Your task to perform on an android device: turn on showing notifications on the lock screen Image 0: 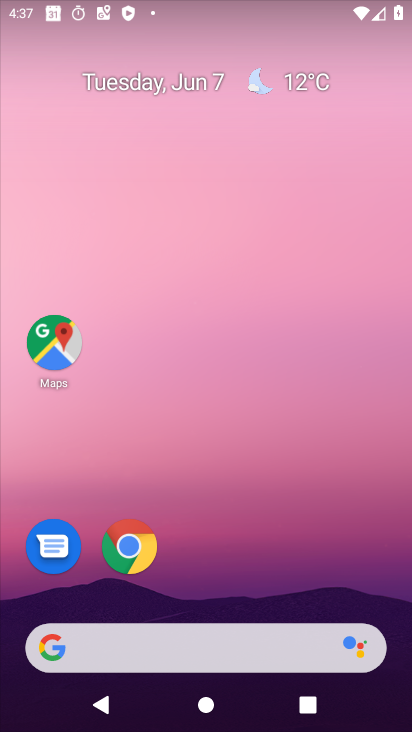
Step 0: drag from (166, 573) to (205, 198)
Your task to perform on an android device: turn on showing notifications on the lock screen Image 1: 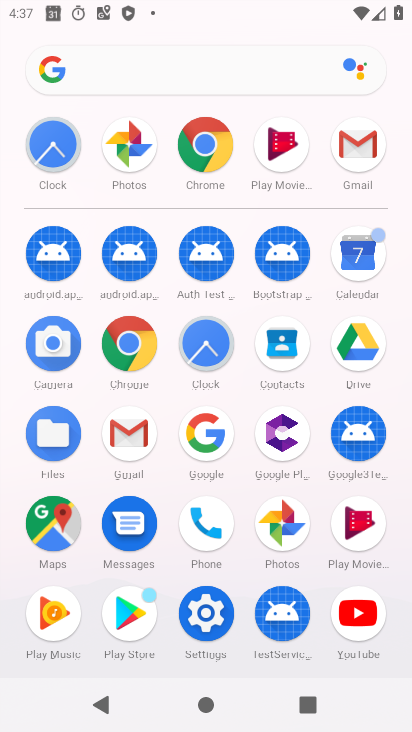
Step 1: click (193, 639)
Your task to perform on an android device: turn on showing notifications on the lock screen Image 2: 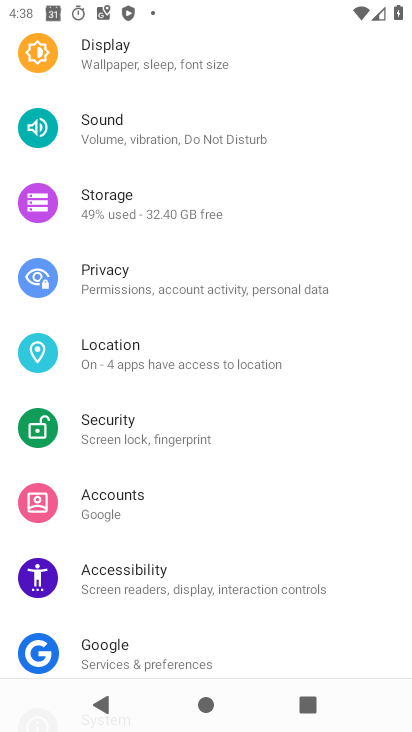
Step 2: drag from (242, 160) to (254, 505)
Your task to perform on an android device: turn on showing notifications on the lock screen Image 3: 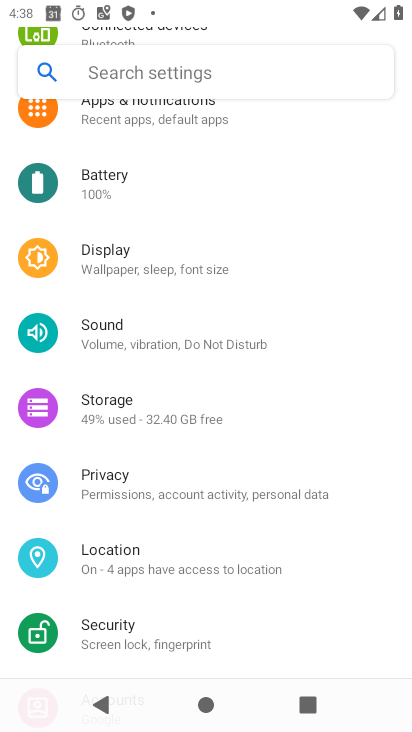
Step 3: click (122, 115)
Your task to perform on an android device: turn on showing notifications on the lock screen Image 4: 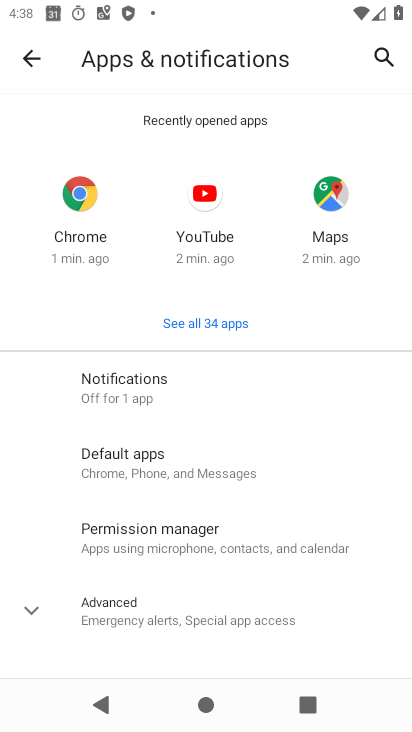
Step 4: click (129, 383)
Your task to perform on an android device: turn on showing notifications on the lock screen Image 5: 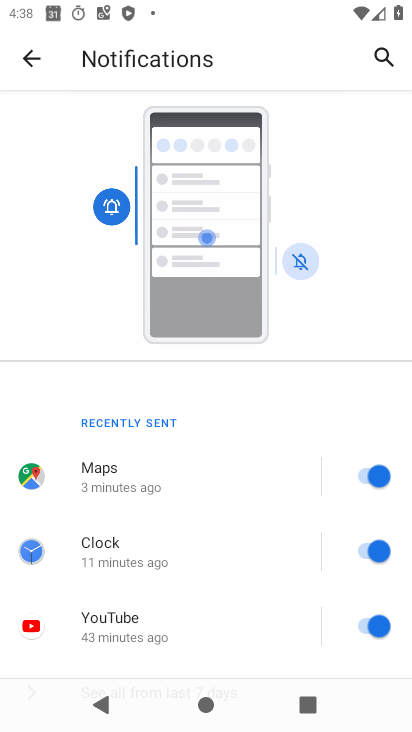
Step 5: drag from (89, 619) to (25, 142)
Your task to perform on an android device: turn on showing notifications on the lock screen Image 6: 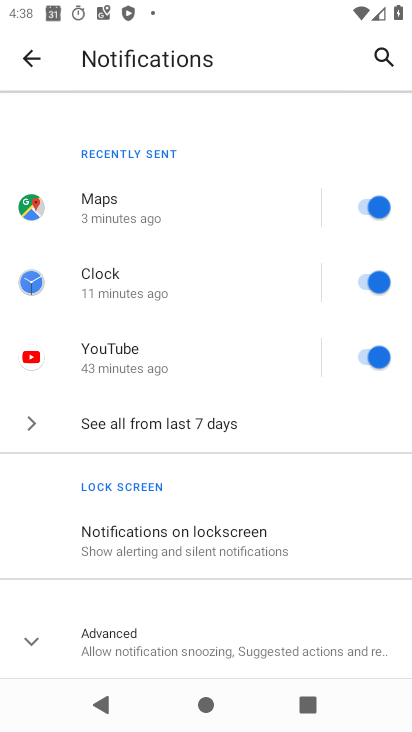
Step 6: click (133, 551)
Your task to perform on an android device: turn on showing notifications on the lock screen Image 7: 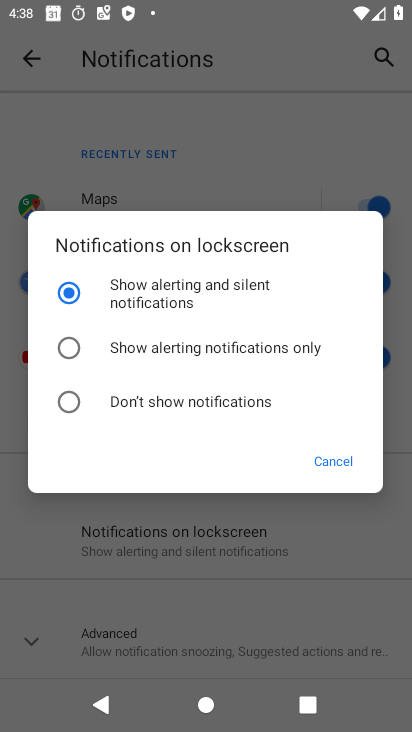
Step 7: task complete